Your task to perform on an android device: turn on the 12-hour format for clock Image 0: 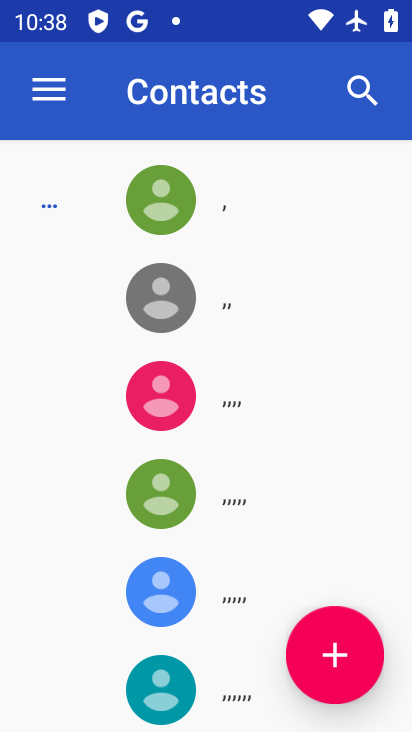
Step 0: press home button
Your task to perform on an android device: turn on the 12-hour format for clock Image 1: 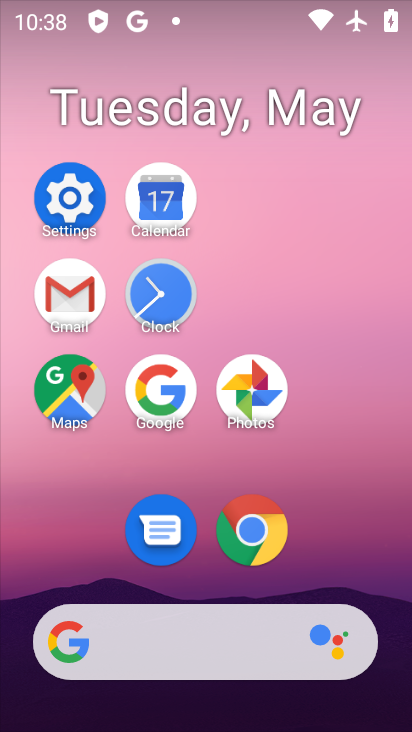
Step 1: click (146, 292)
Your task to perform on an android device: turn on the 12-hour format for clock Image 2: 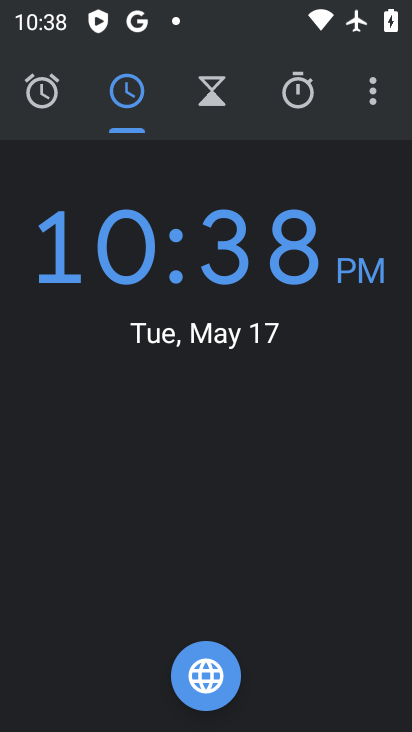
Step 2: click (386, 88)
Your task to perform on an android device: turn on the 12-hour format for clock Image 3: 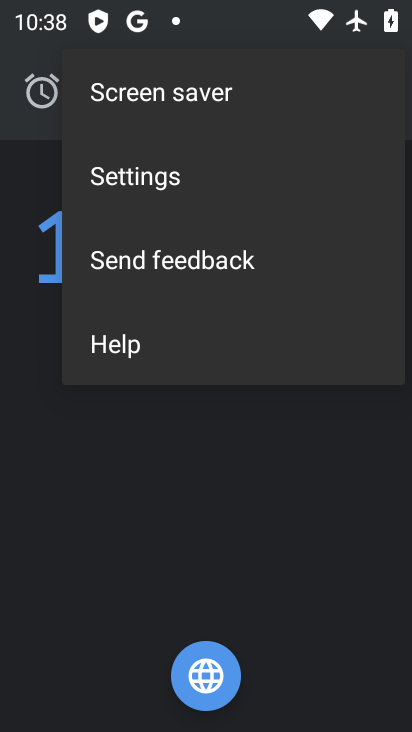
Step 3: click (233, 179)
Your task to perform on an android device: turn on the 12-hour format for clock Image 4: 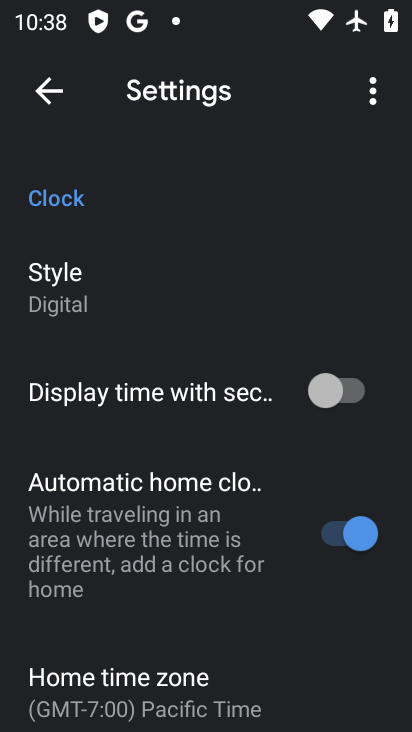
Step 4: drag from (152, 578) to (160, 162)
Your task to perform on an android device: turn on the 12-hour format for clock Image 5: 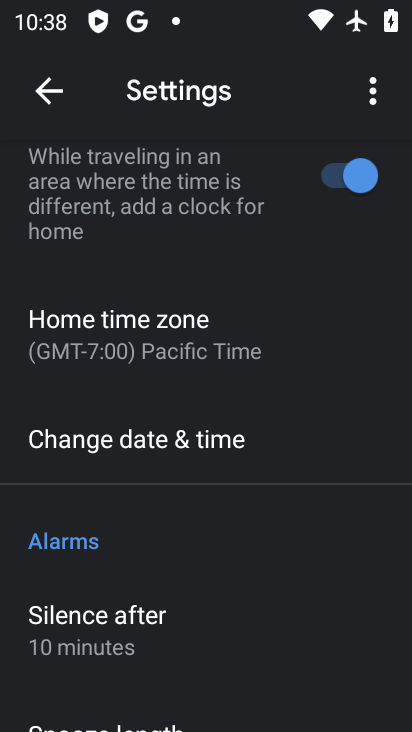
Step 5: drag from (157, 584) to (199, 377)
Your task to perform on an android device: turn on the 12-hour format for clock Image 6: 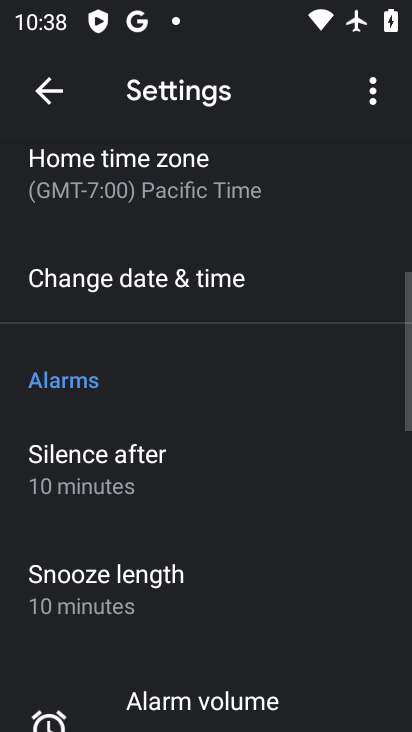
Step 6: click (192, 296)
Your task to perform on an android device: turn on the 12-hour format for clock Image 7: 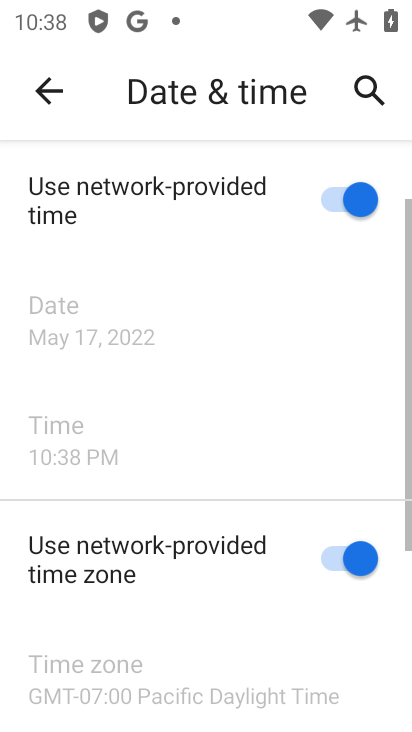
Step 7: task complete